Your task to perform on an android device: Go to ESPN.com Image 0: 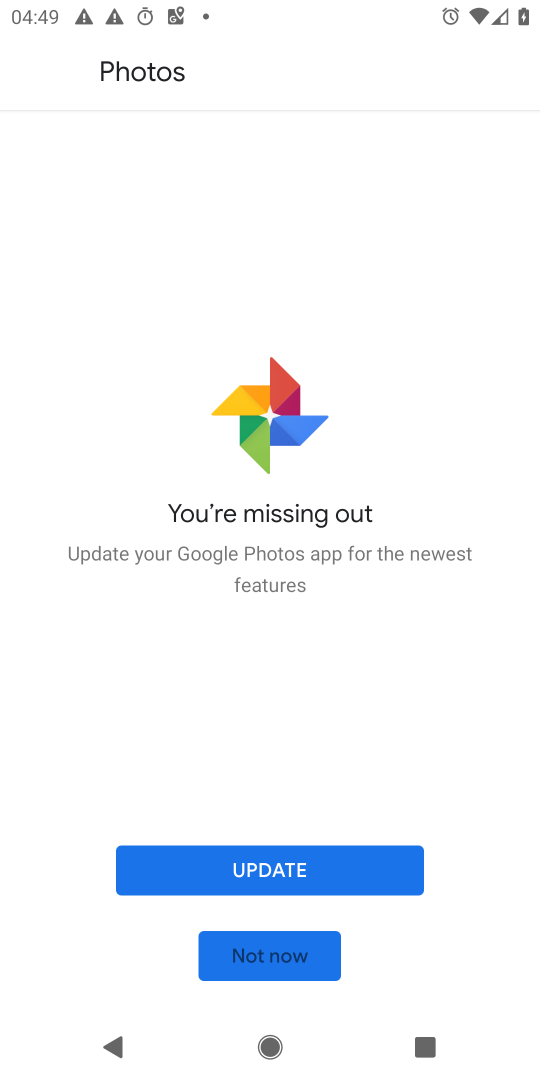
Step 0: press home button
Your task to perform on an android device: Go to ESPN.com Image 1: 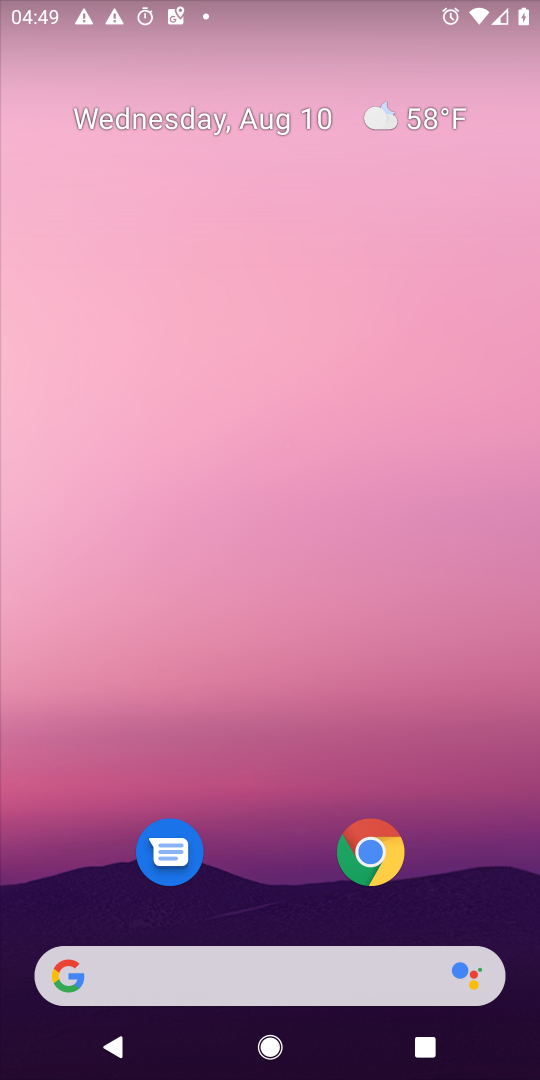
Step 1: drag from (283, 876) to (148, 232)
Your task to perform on an android device: Go to ESPN.com Image 2: 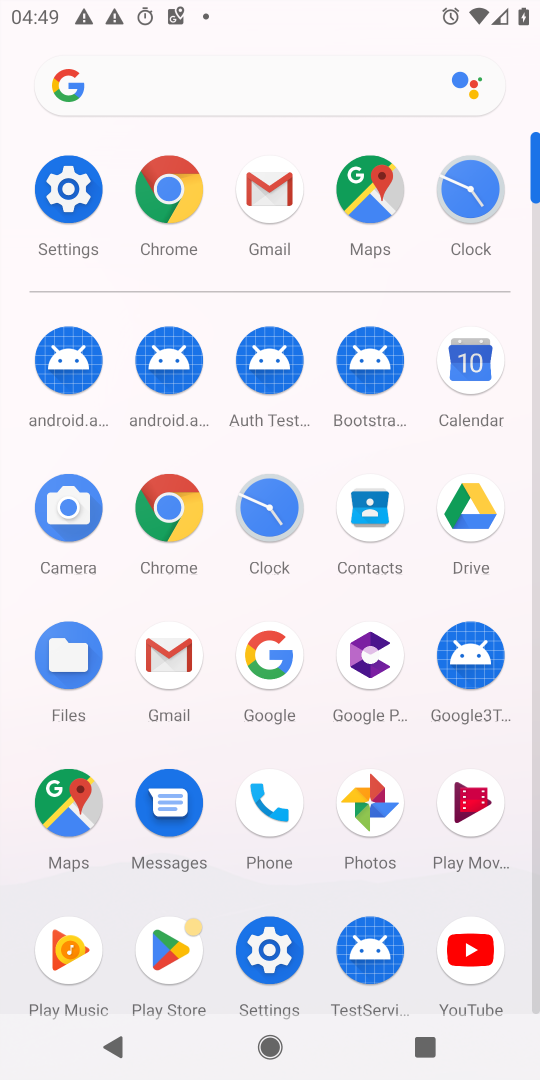
Step 2: click (154, 520)
Your task to perform on an android device: Go to ESPN.com Image 3: 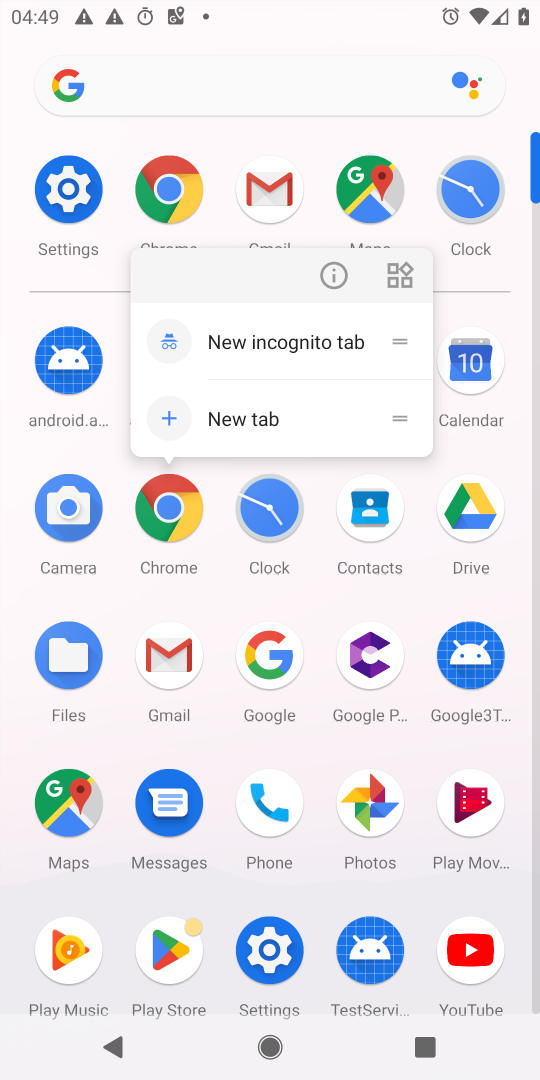
Step 3: click (175, 510)
Your task to perform on an android device: Go to ESPN.com Image 4: 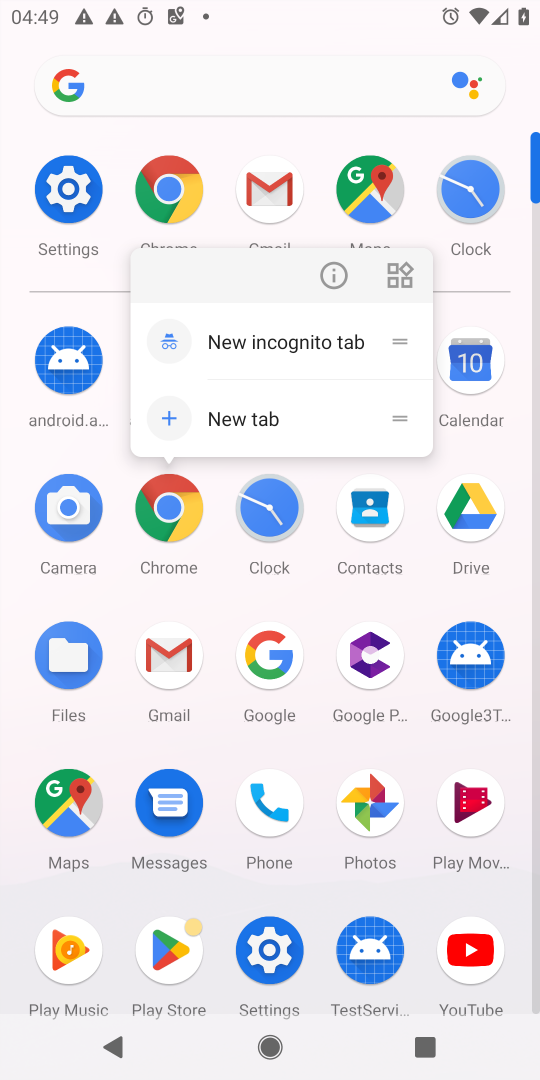
Step 4: click (175, 510)
Your task to perform on an android device: Go to ESPN.com Image 5: 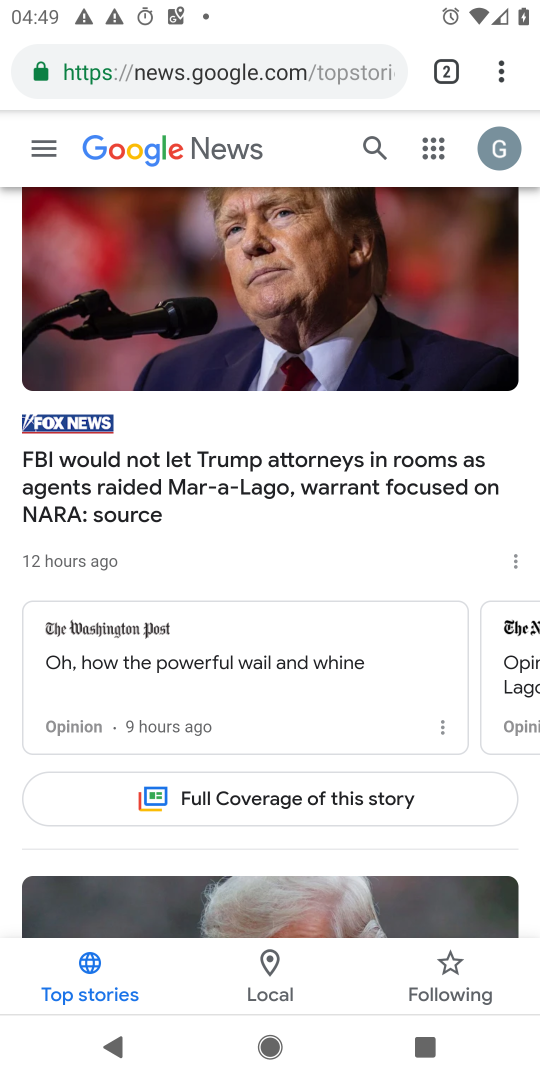
Step 5: click (270, 84)
Your task to perform on an android device: Go to ESPN.com Image 6: 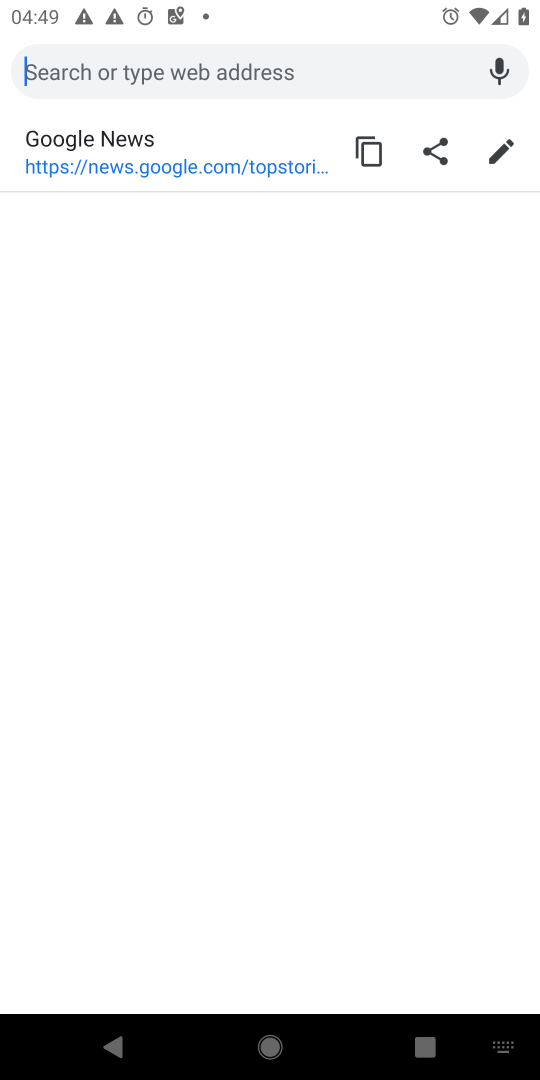
Step 6: type "ESPN.com"
Your task to perform on an android device: Go to ESPN.com Image 7: 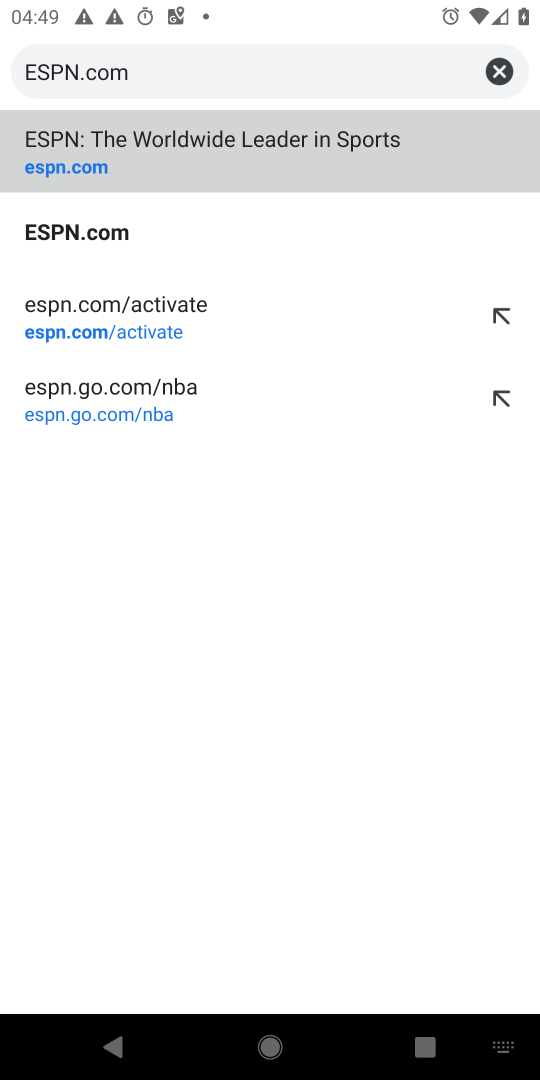
Step 7: click (104, 178)
Your task to perform on an android device: Go to ESPN.com Image 8: 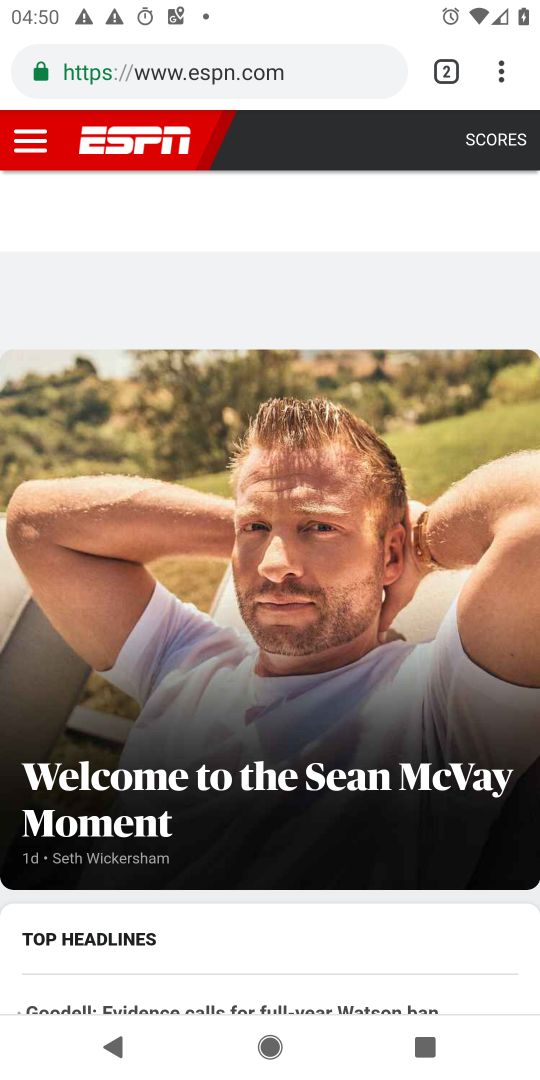
Step 8: task complete